Your task to perform on an android device: turn off picture-in-picture Image 0: 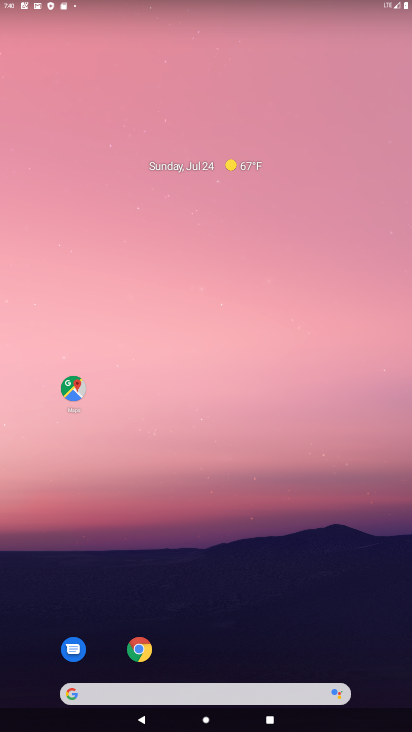
Step 0: drag from (192, 671) to (53, 4)
Your task to perform on an android device: turn off picture-in-picture Image 1: 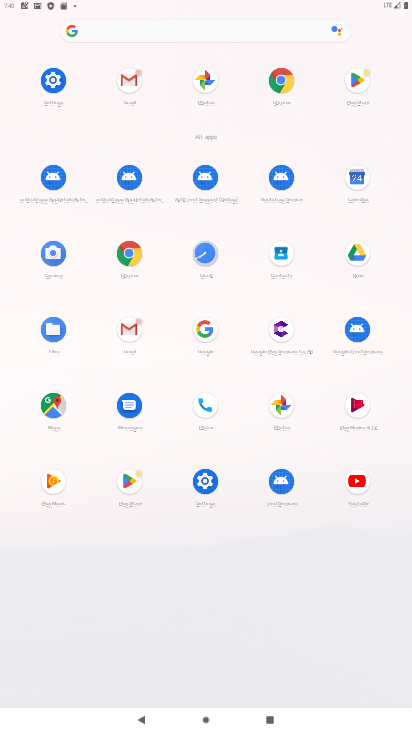
Step 1: click (226, 476)
Your task to perform on an android device: turn off picture-in-picture Image 2: 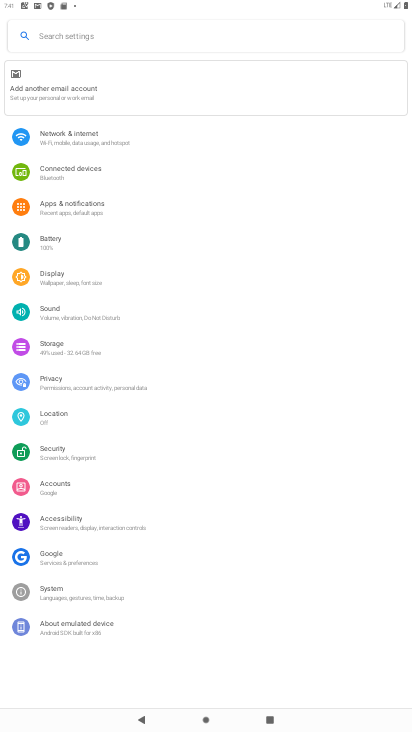
Step 2: click (57, 214)
Your task to perform on an android device: turn off picture-in-picture Image 3: 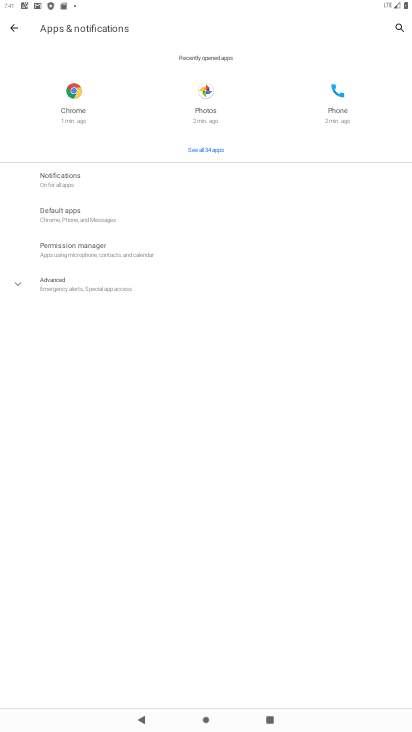
Step 3: click (74, 187)
Your task to perform on an android device: turn off picture-in-picture Image 4: 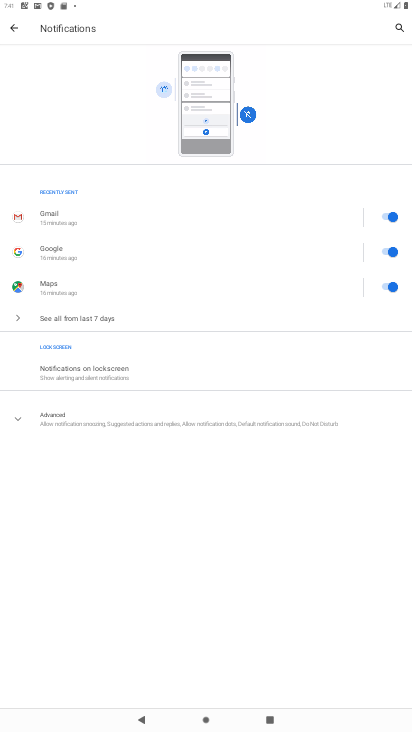
Step 4: click (5, 37)
Your task to perform on an android device: turn off picture-in-picture Image 5: 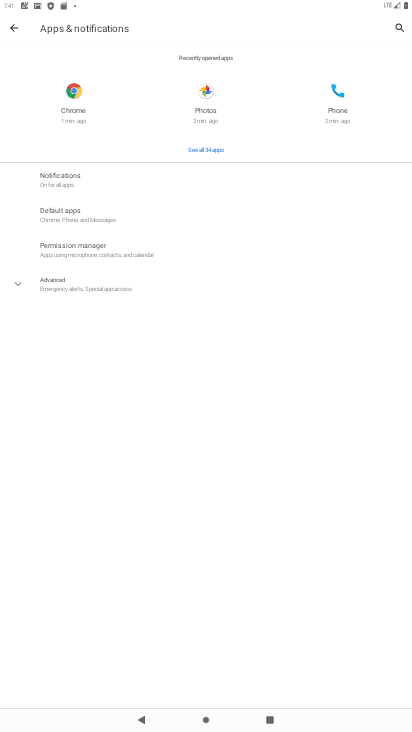
Step 5: click (47, 270)
Your task to perform on an android device: turn off picture-in-picture Image 6: 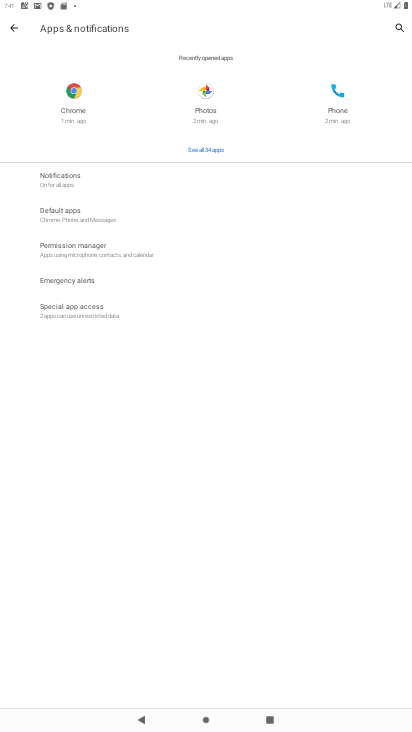
Step 6: click (82, 305)
Your task to perform on an android device: turn off picture-in-picture Image 7: 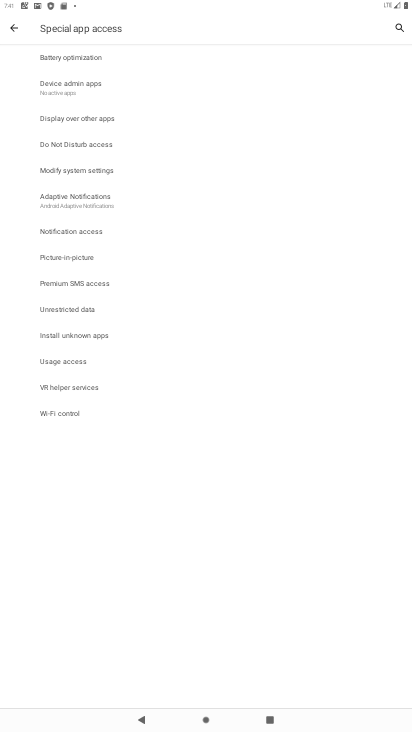
Step 7: click (60, 267)
Your task to perform on an android device: turn off picture-in-picture Image 8: 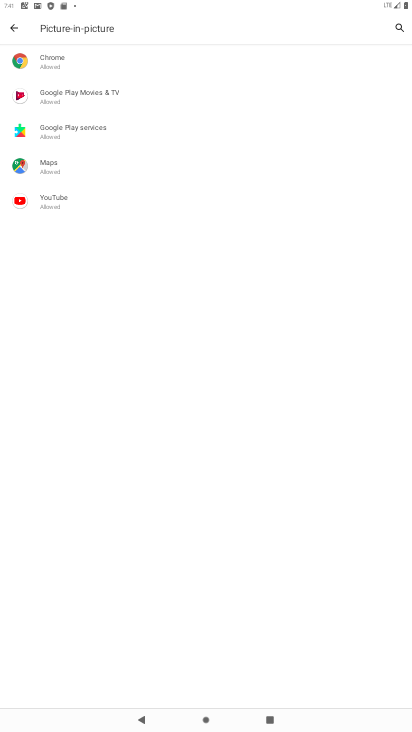
Step 8: task complete